Your task to perform on an android device: turn off smart reply in the gmail app Image 0: 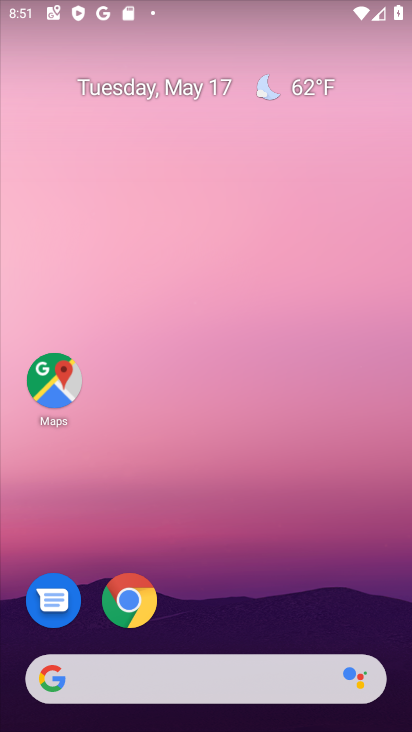
Step 0: drag from (212, 722) to (200, 224)
Your task to perform on an android device: turn off smart reply in the gmail app Image 1: 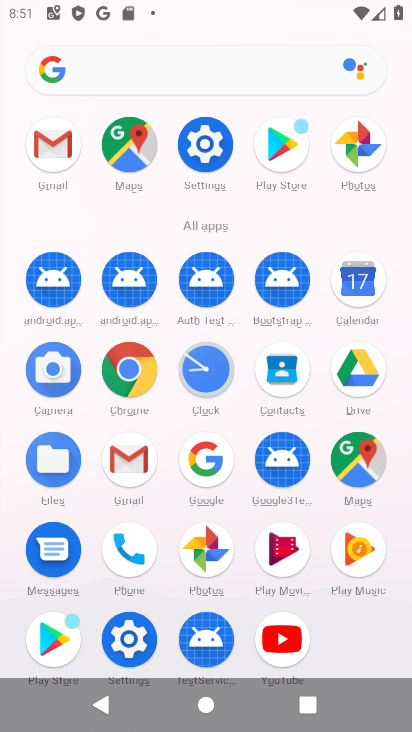
Step 1: click (127, 472)
Your task to perform on an android device: turn off smart reply in the gmail app Image 2: 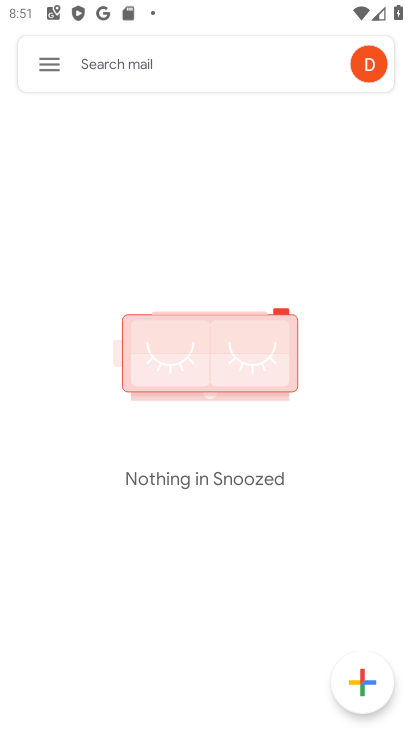
Step 2: click (51, 64)
Your task to perform on an android device: turn off smart reply in the gmail app Image 3: 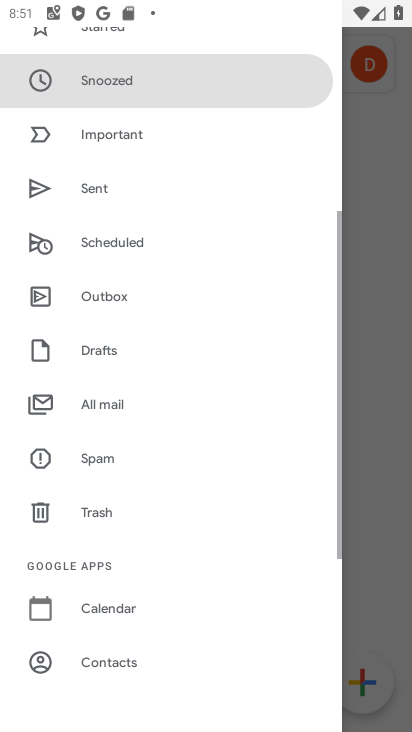
Step 3: drag from (106, 637) to (121, 311)
Your task to perform on an android device: turn off smart reply in the gmail app Image 4: 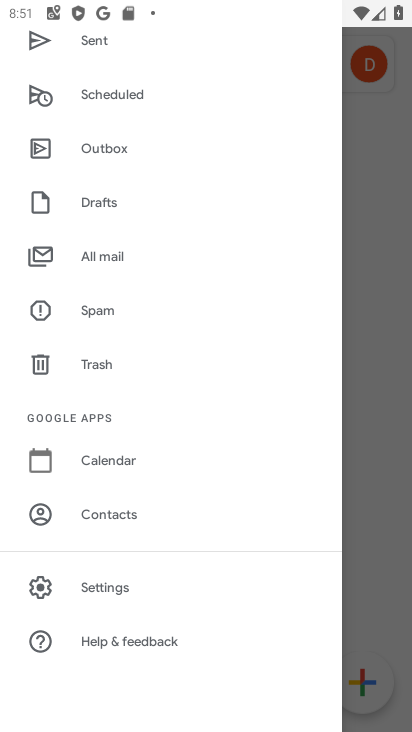
Step 4: click (114, 581)
Your task to perform on an android device: turn off smart reply in the gmail app Image 5: 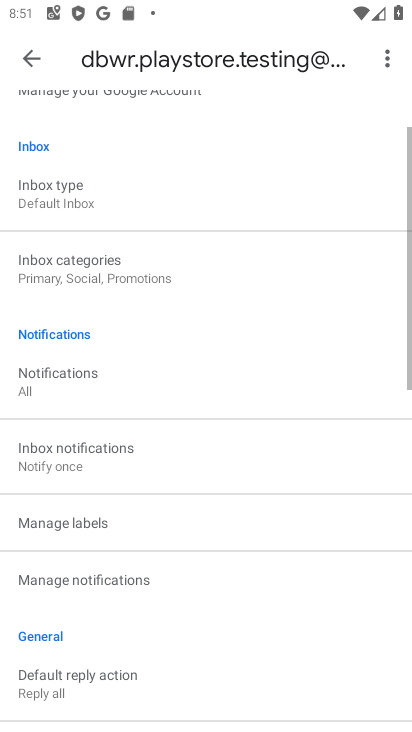
Step 5: drag from (115, 632) to (130, 316)
Your task to perform on an android device: turn off smart reply in the gmail app Image 6: 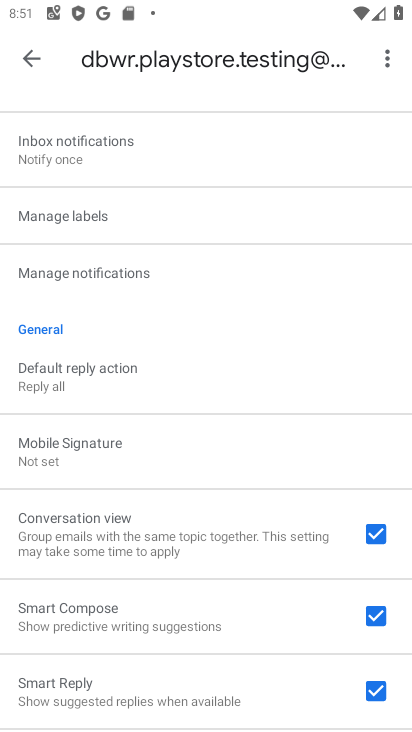
Step 6: drag from (152, 676) to (180, 437)
Your task to perform on an android device: turn off smart reply in the gmail app Image 7: 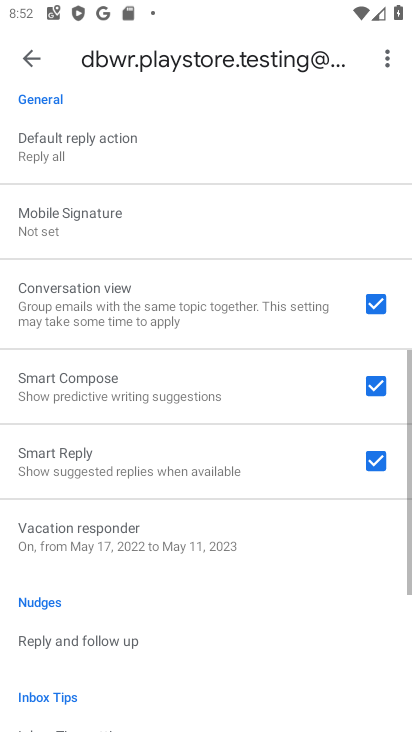
Step 7: click (375, 461)
Your task to perform on an android device: turn off smart reply in the gmail app Image 8: 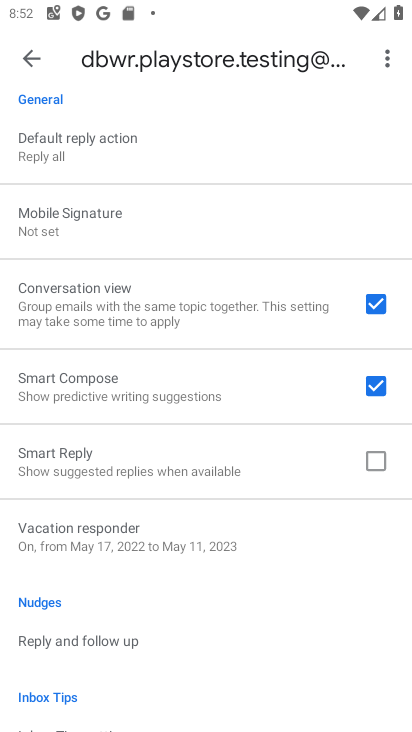
Step 8: task complete